Your task to perform on an android device: Go to Yahoo.com Image 0: 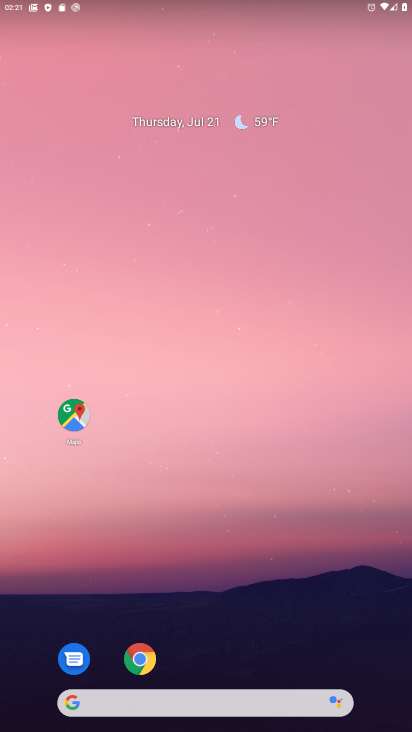
Step 0: drag from (235, 594) to (263, 55)
Your task to perform on an android device: Go to Yahoo.com Image 1: 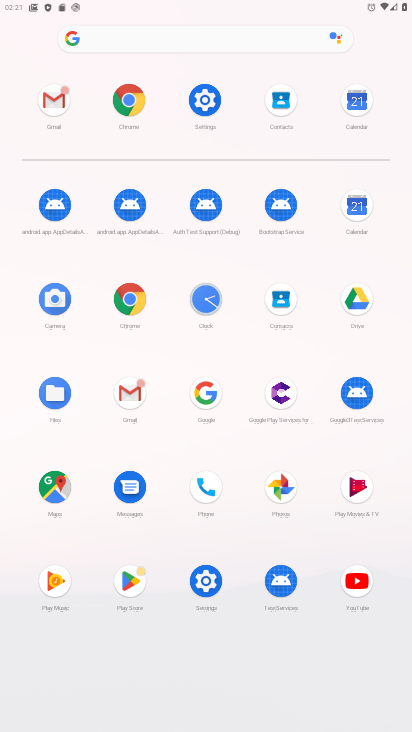
Step 1: click (129, 102)
Your task to perform on an android device: Go to Yahoo.com Image 2: 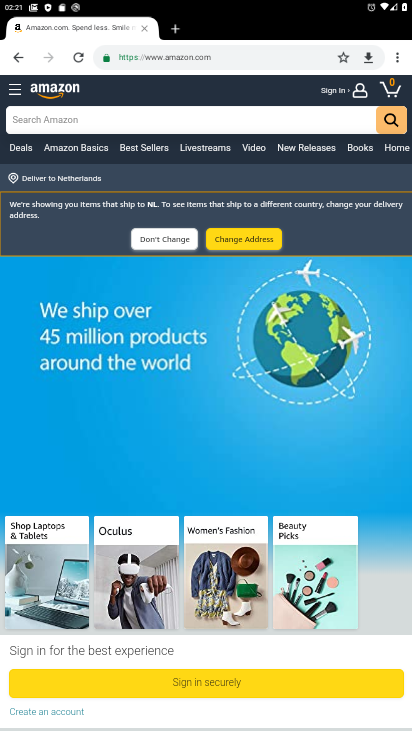
Step 2: click (233, 56)
Your task to perform on an android device: Go to Yahoo.com Image 3: 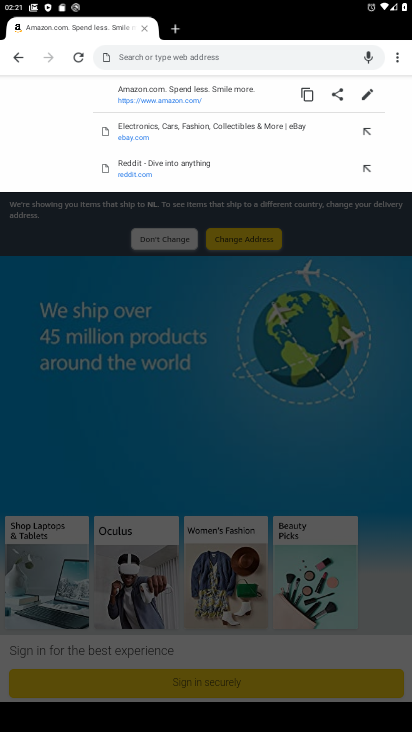
Step 3: type "yahoo.com"
Your task to perform on an android device: Go to Yahoo.com Image 4: 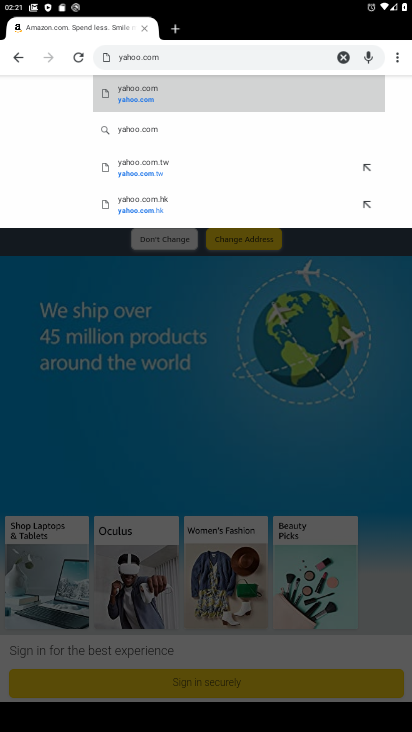
Step 4: click (195, 97)
Your task to perform on an android device: Go to Yahoo.com Image 5: 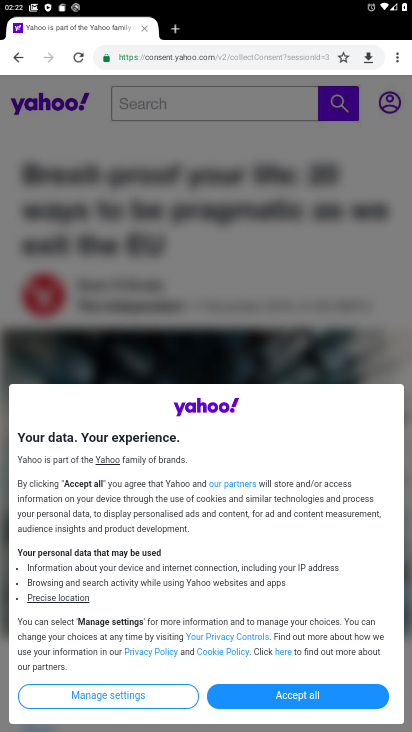
Step 5: task complete